Your task to perform on an android device: add a label to a message in the gmail app Image 0: 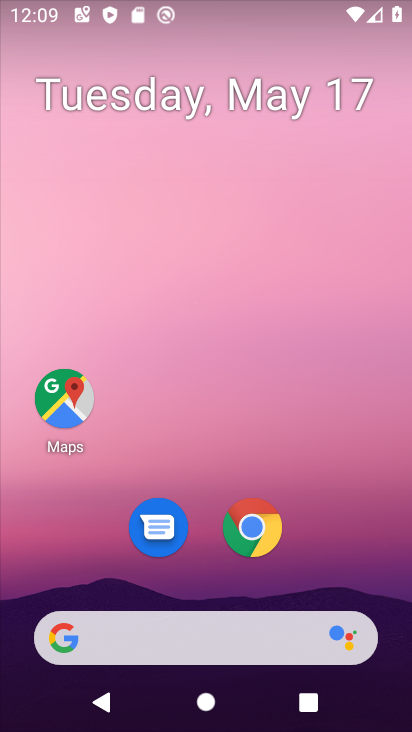
Step 0: drag from (337, 548) to (342, 137)
Your task to perform on an android device: add a label to a message in the gmail app Image 1: 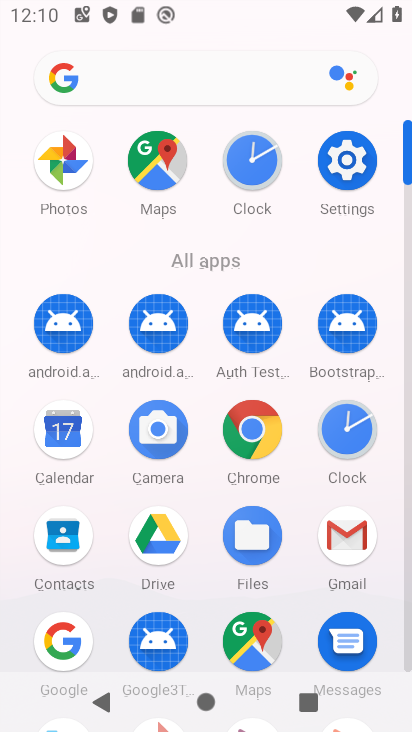
Step 1: click (338, 541)
Your task to perform on an android device: add a label to a message in the gmail app Image 2: 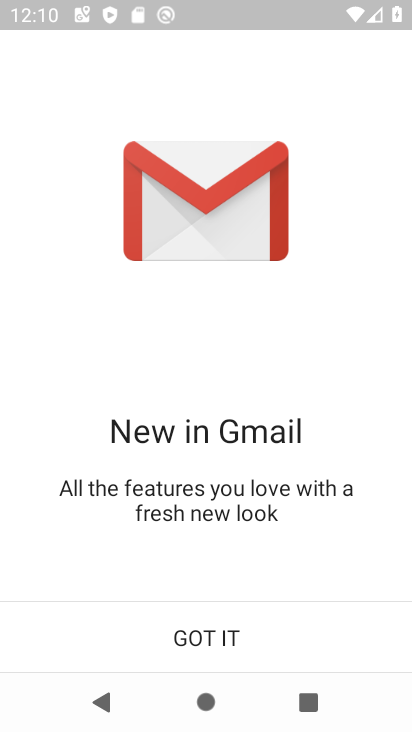
Step 2: click (215, 624)
Your task to perform on an android device: add a label to a message in the gmail app Image 3: 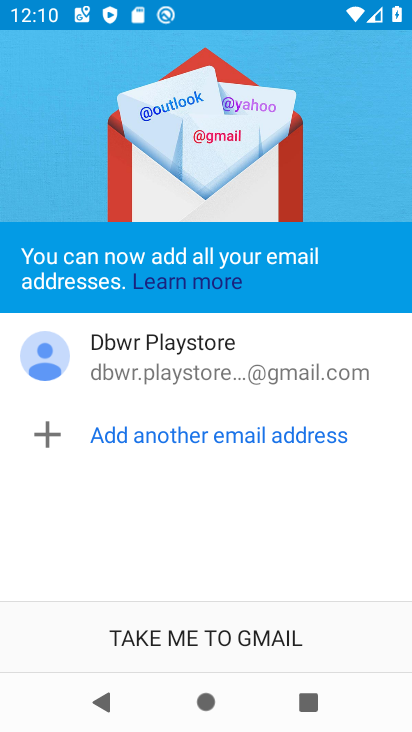
Step 3: click (216, 625)
Your task to perform on an android device: add a label to a message in the gmail app Image 4: 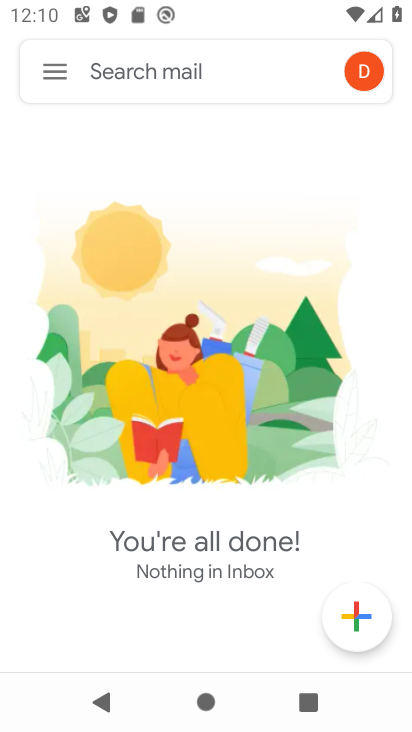
Step 4: click (59, 75)
Your task to perform on an android device: add a label to a message in the gmail app Image 5: 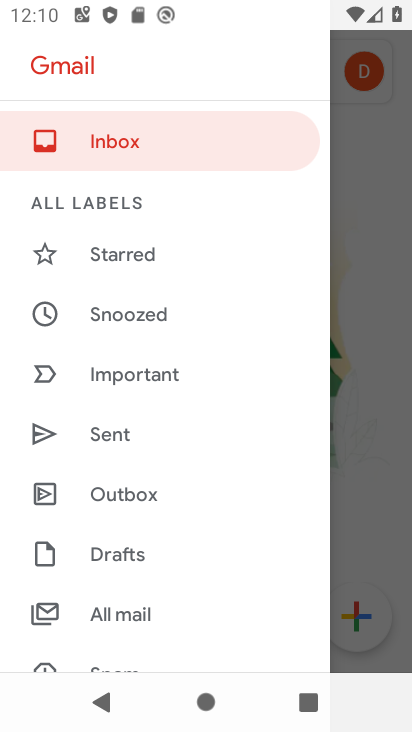
Step 5: click (144, 613)
Your task to perform on an android device: add a label to a message in the gmail app Image 6: 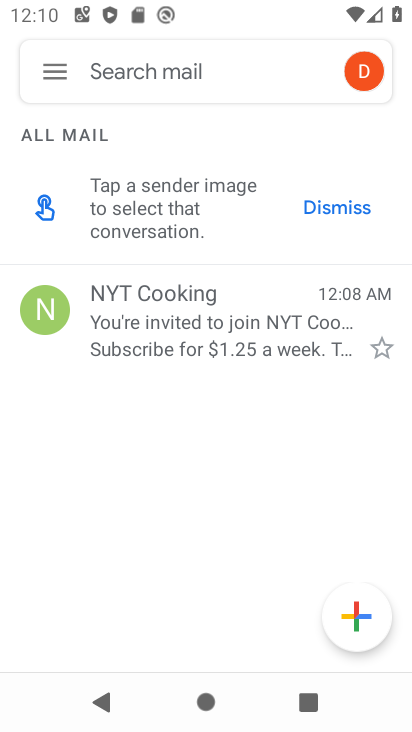
Step 6: click (378, 342)
Your task to perform on an android device: add a label to a message in the gmail app Image 7: 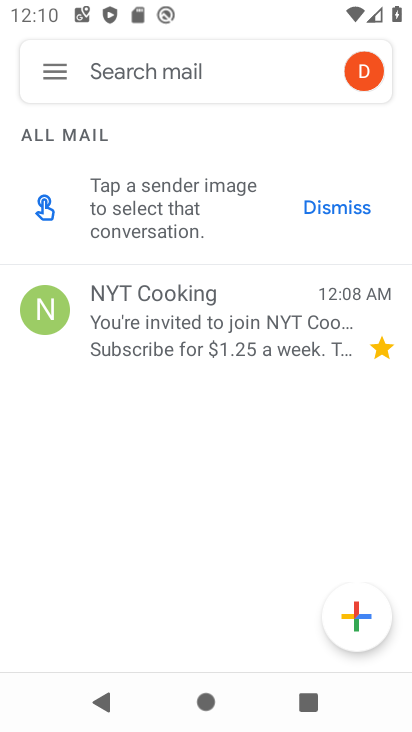
Step 7: task complete